Your task to perform on an android device: toggle notifications settings in the gmail app Image 0: 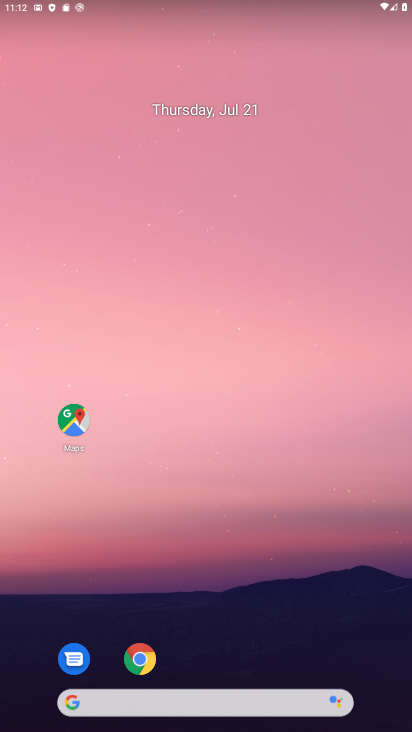
Step 0: drag from (247, 655) to (301, 136)
Your task to perform on an android device: toggle notifications settings in the gmail app Image 1: 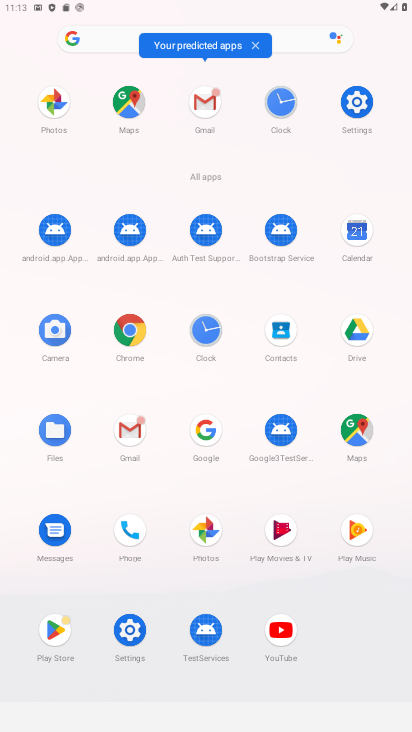
Step 1: click (195, 93)
Your task to perform on an android device: toggle notifications settings in the gmail app Image 2: 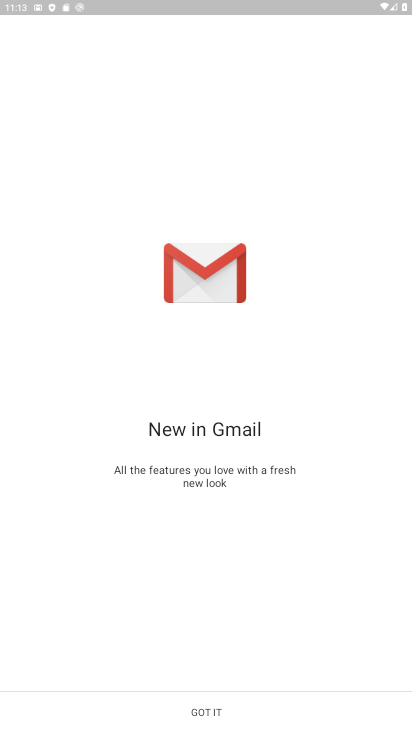
Step 2: click (217, 708)
Your task to perform on an android device: toggle notifications settings in the gmail app Image 3: 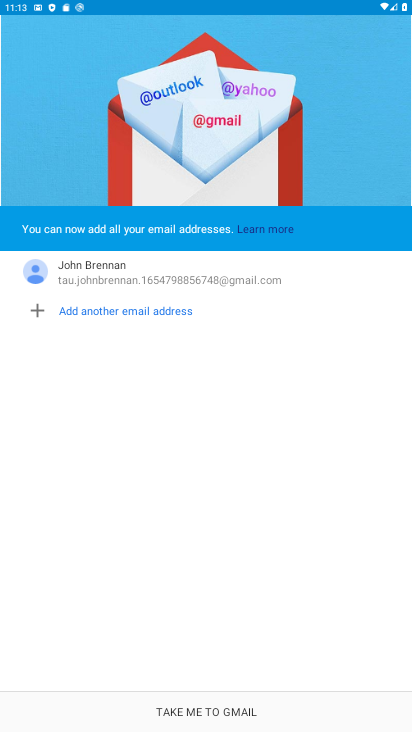
Step 3: click (217, 708)
Your task to perform on an android device: toggle notifications settings in the gmail app Image 4: 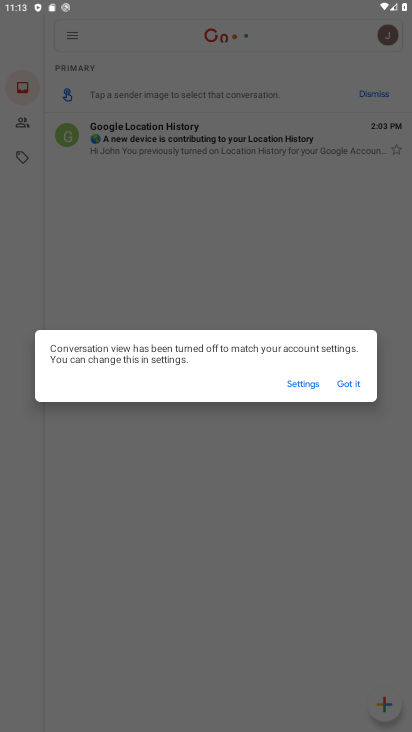
Step 4: click (349, 376)
Your task to perform on an android device: toggle notifications settings in the gmail app Image 5: 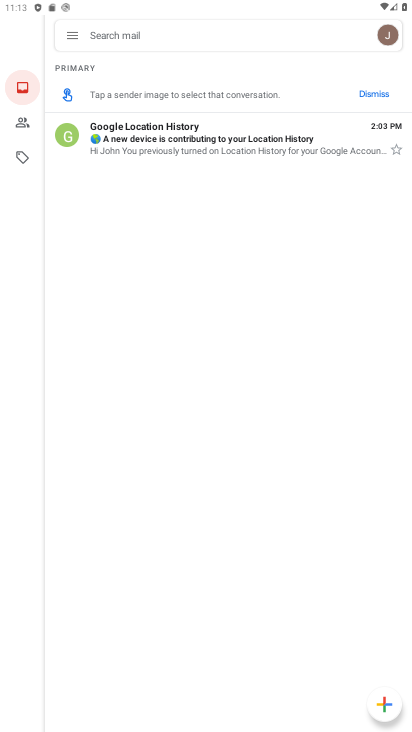
Step 5: click (72, 32)
Your task to perform on an android device: toggle notifications settings in the gmail app Image 6: 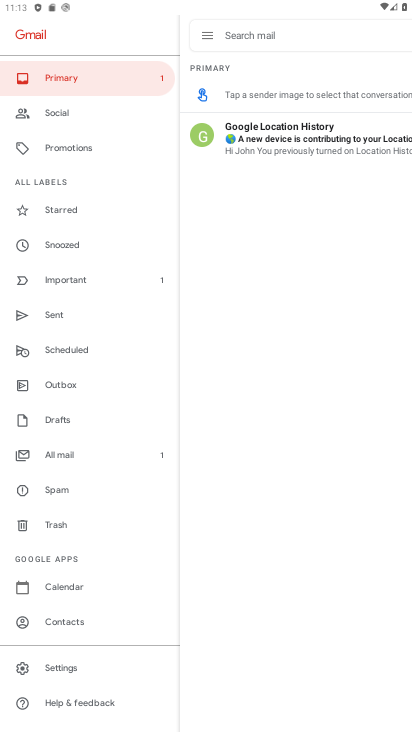
Step 6: click (75, 659)
Your task to perform on an android device: toggle notifications settings in the gmail app Image 7: 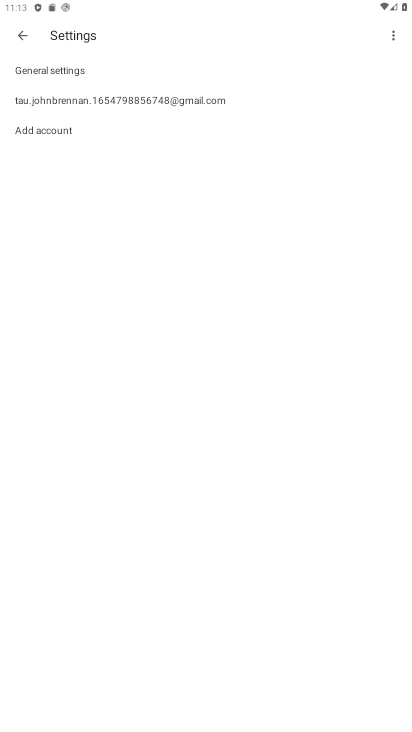
Step 7: click (191, 110)
Your task to perform on an android device: toggle notifications settings in the gmail app Image 8: 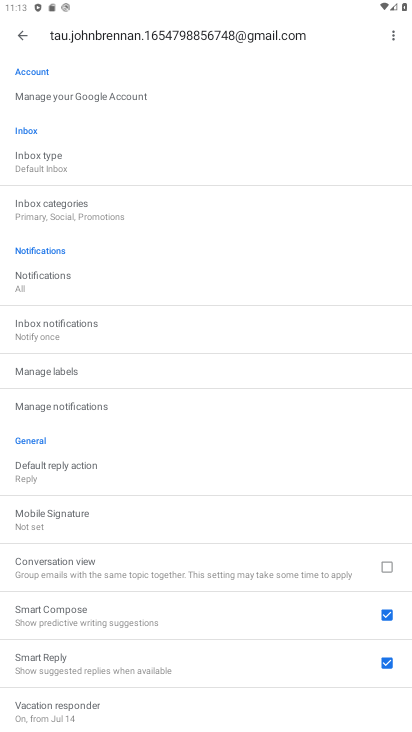
Step 8: click (124, 402)
Your task to perform on an android device: toggle notifications settings in the gmail app Image 9: 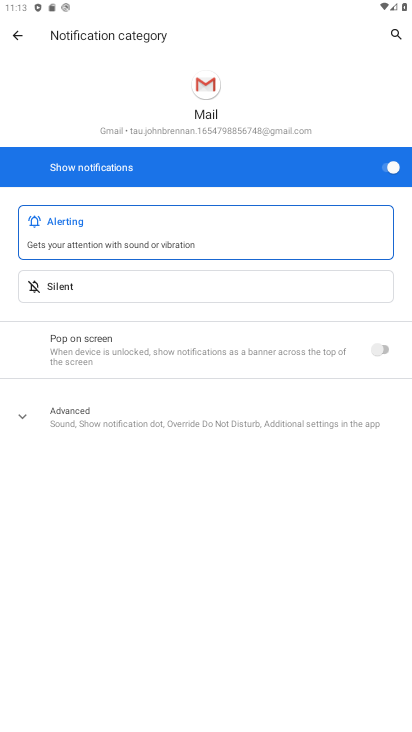
Step 9: click (157, 274)
Your task to perform on an android device: toggle notifications settings in the gmail app Image 10: 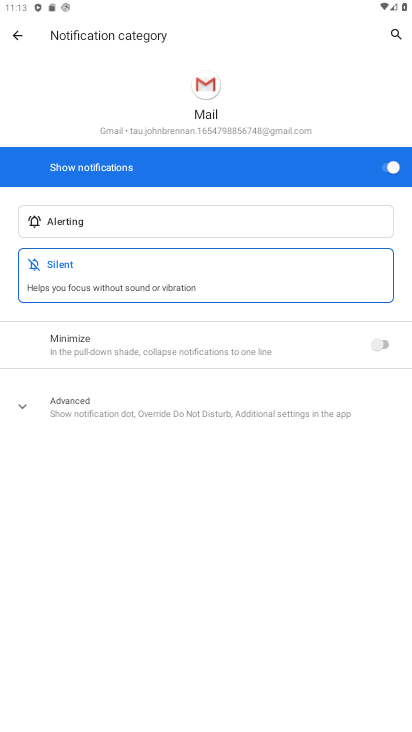
Step 10: click (365, 354)
Your task to perform on an android device: toggle notifications settings in the gmail app Image 11: 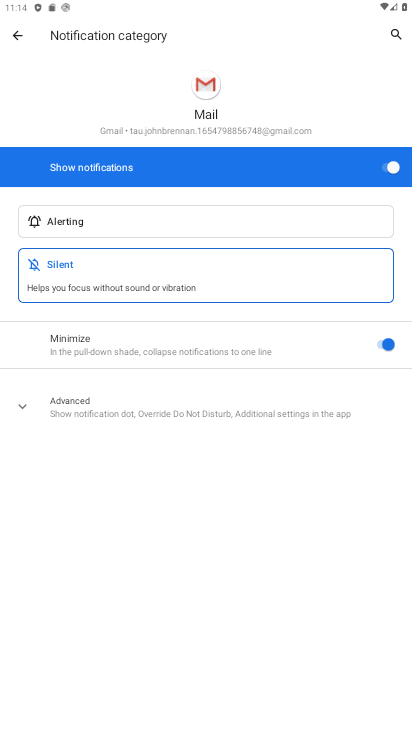
Step 11: task complete